Your task to perform on an android device: Go to calendar. Show me events next week Image 0: 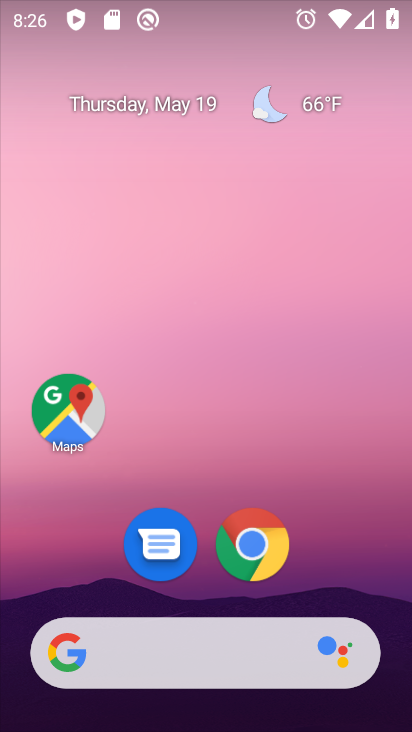
Step 0: drag from (370, 611) to (336, 34)
Your task to perform on an android device: Go to calendar. Show me events next week Image 1: 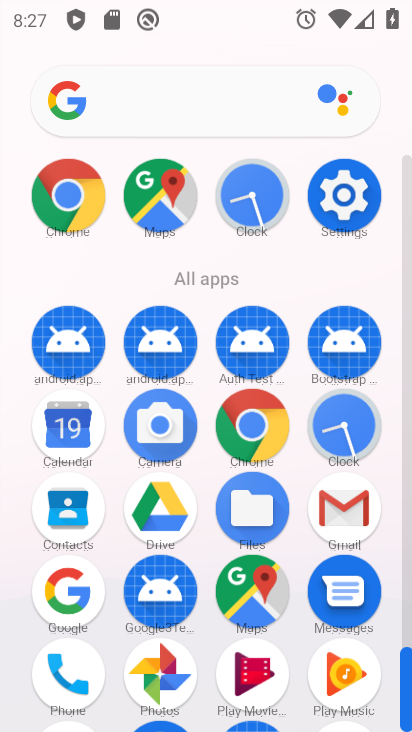
Step 1: click (69, 443)
Your task to perform on an android device: Go to calendar. Show me events next week Image 2: 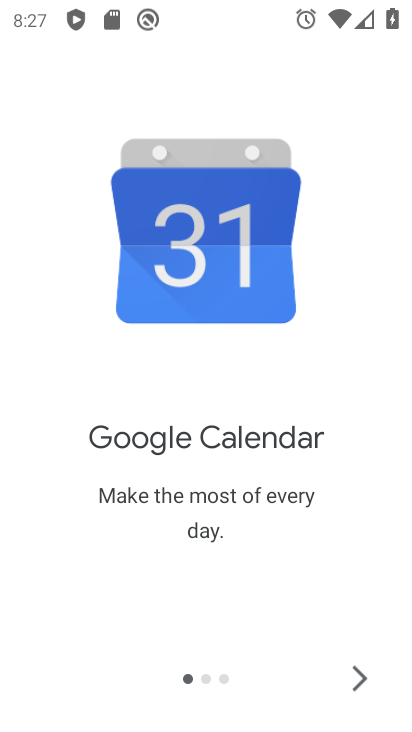
Step 2: click (348, 667)
Your task to perform on an android device: Go to calendar. Show me events next week Image 3: 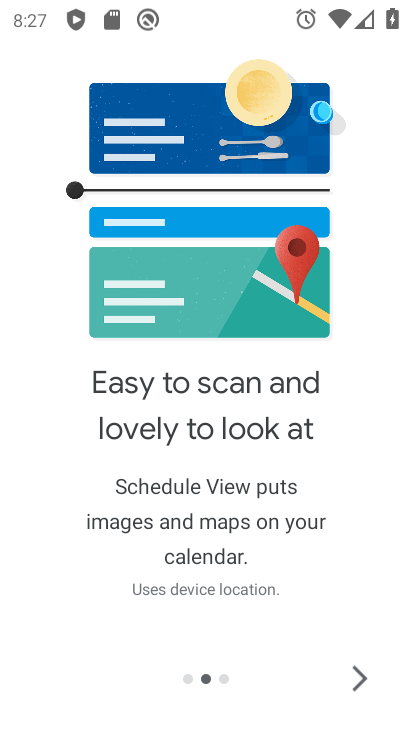
Step 3: click (353, 669)
Your task to perform on an android device: Go to calendar. Show me events next week Image 4: 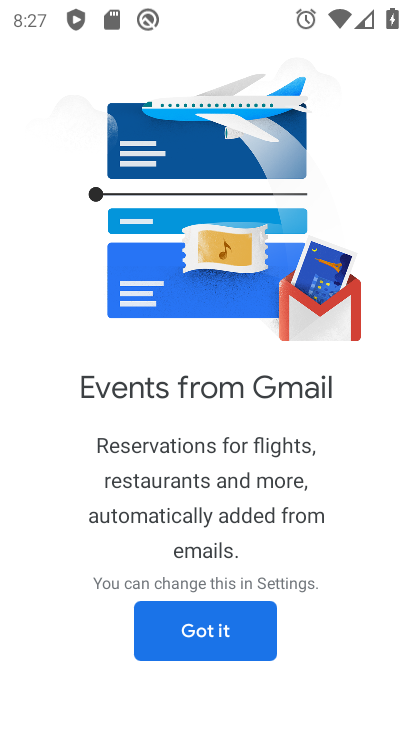
Step 4: click (202, 633)
Your task to perform on an android device: Go to calendar. Show me events next week Image 5: 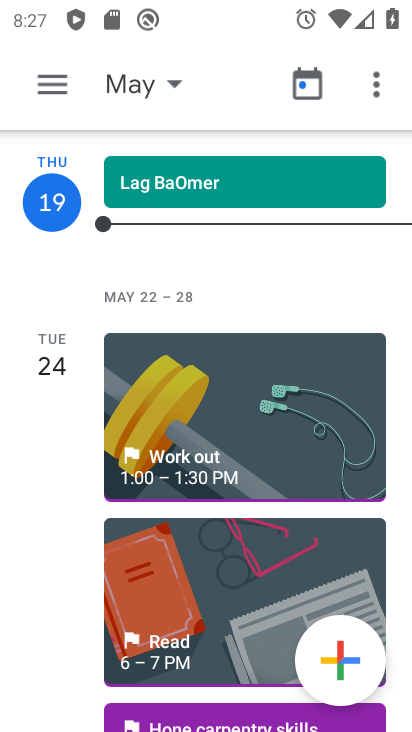
Step 5: task complete